Your task to perform on an android device: set an alarm Image 0: 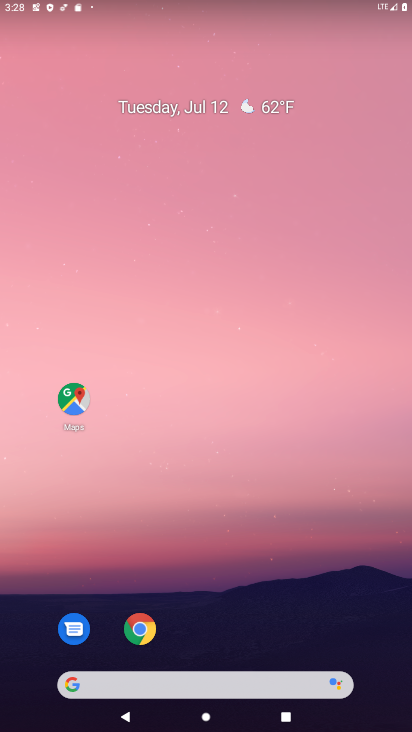
Step 0: drag from (191, 653) to (176, 154)
Your task to perform on an android device: set an alarm Image 1: 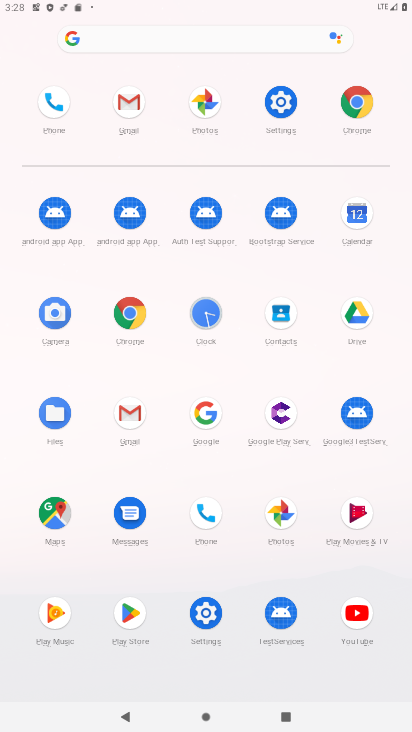
Step 1: click (211, 311)
Your task to perform on an android device: set an alarm Image 2: 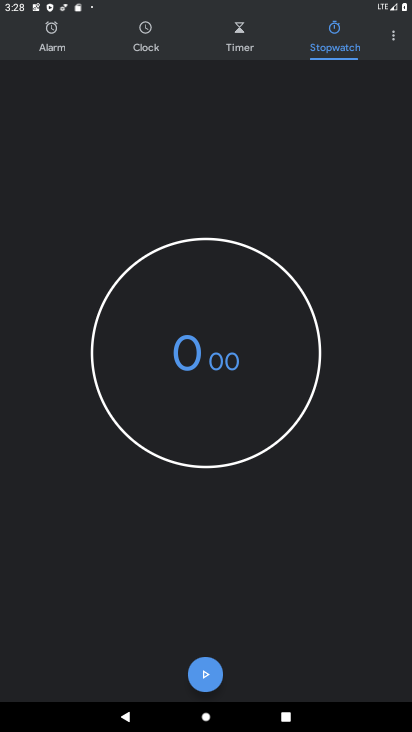
Step 2: click (58, 40)
Your task to perform on an android device: set an alarm Image 3: 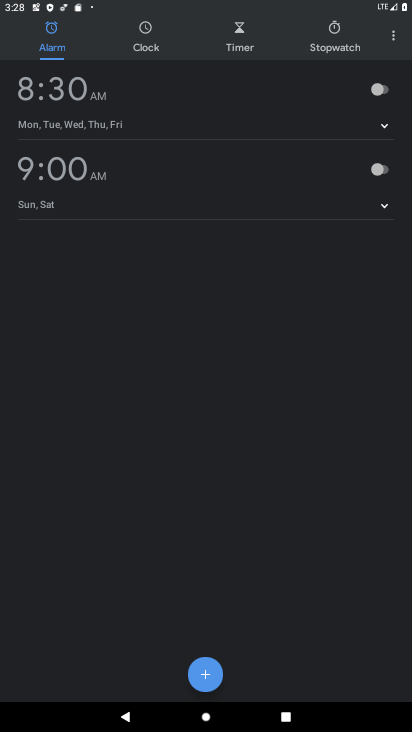
Step 3: click (211, 682)
Your task to perform on an android device: set an alarm Image 4: 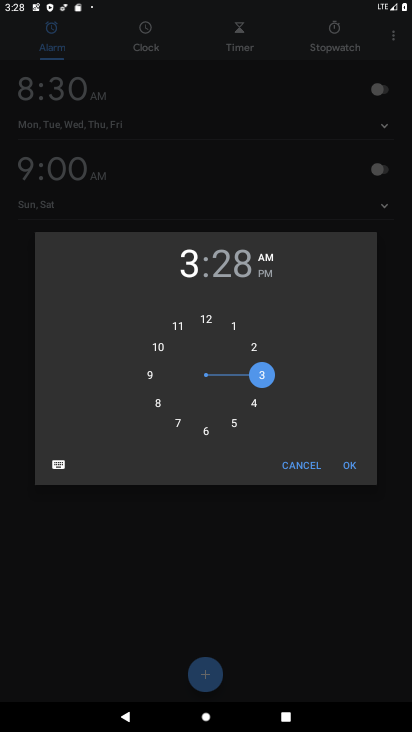
Step 4: click (344, 469)
Your task to perform on an android device: set an alarm Image 5: 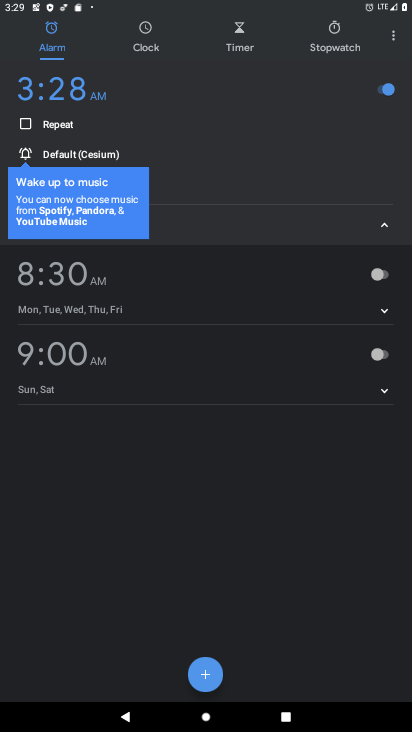
Step 5: task complete